Your task to perform on an android device: Go to Android settings Image 0: 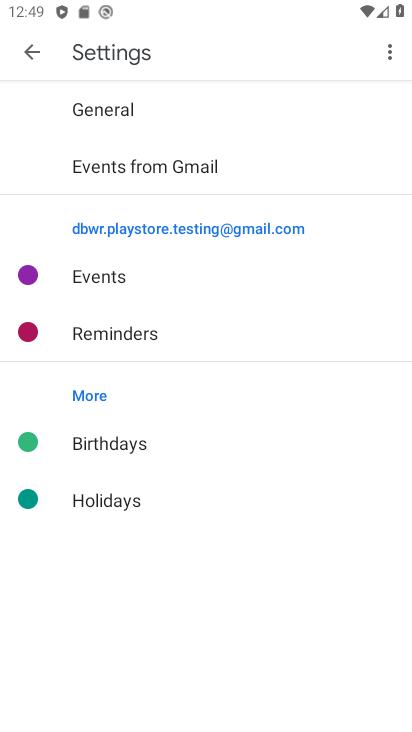
Step 0: drag from (198, 589) to (261, 301)
Your task to perform on an android device: Go to Android settings Image 1: 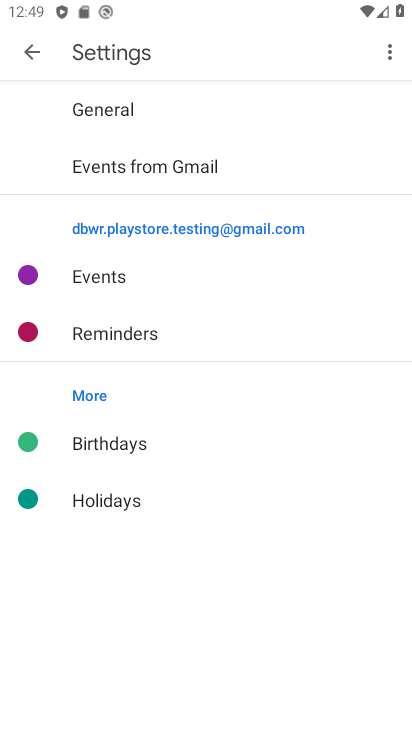
Step 1: press home button
Your task to perform on an android device: Go to Android settings Image 2: 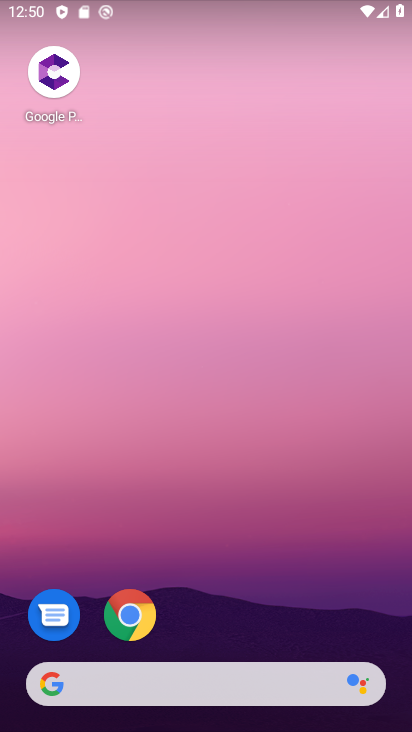
Step 2: drag from (179, 648) to (201, 111)
Your task to perform on an android device: Go to Android settings Image 3: 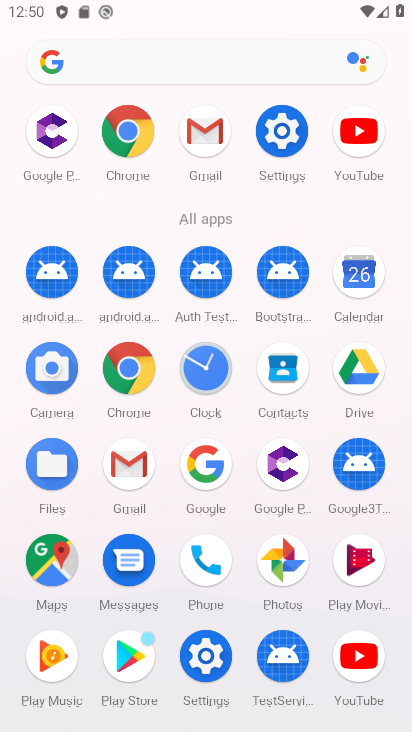
Step 3: click (287, 153)
Your task to perform on an android device: Go to Android settings Image 4: 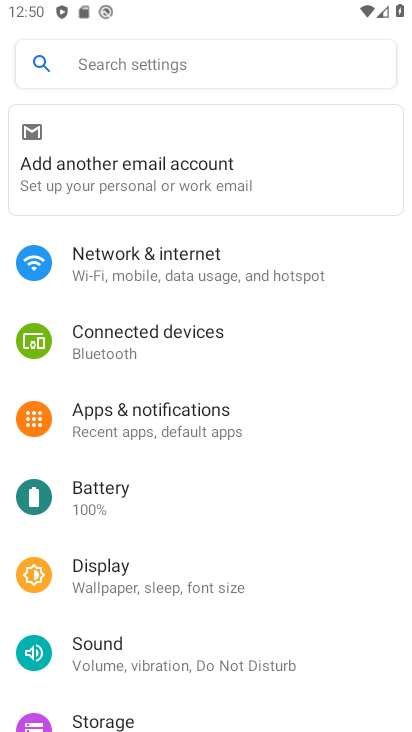
Step 4: drag from (180, 682) to (258, 250)
Your task to perform on an android device: Go to Android settings Image 5: 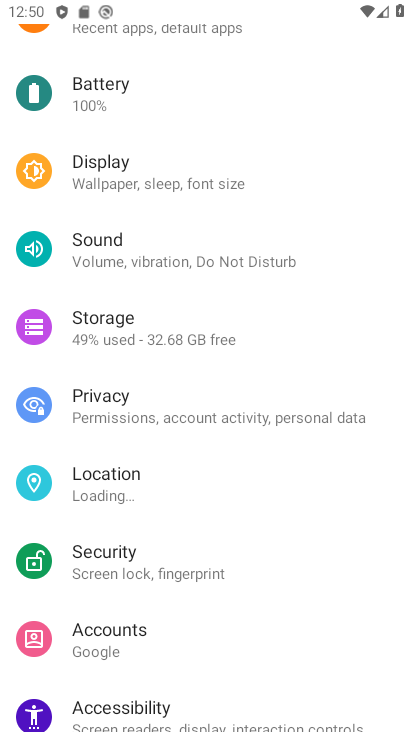
Step 5: drag from (152, 695) to (306, 26)
Your task to perform on an android device: Go to Android settings Image 6: 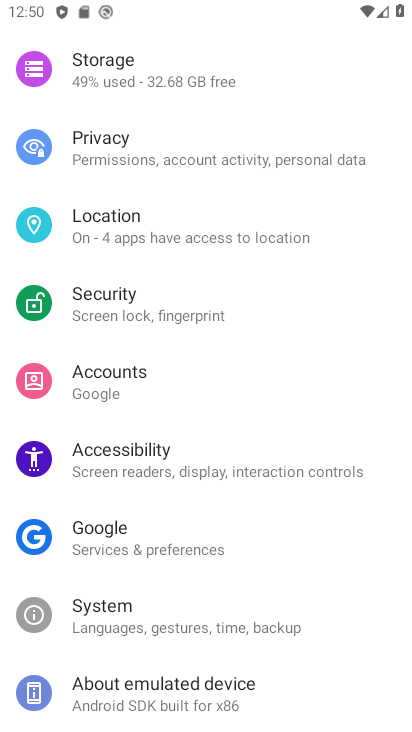
Step 6: click (139, 706)
Your task to perform on an android device: Go to Android settings Image 7: 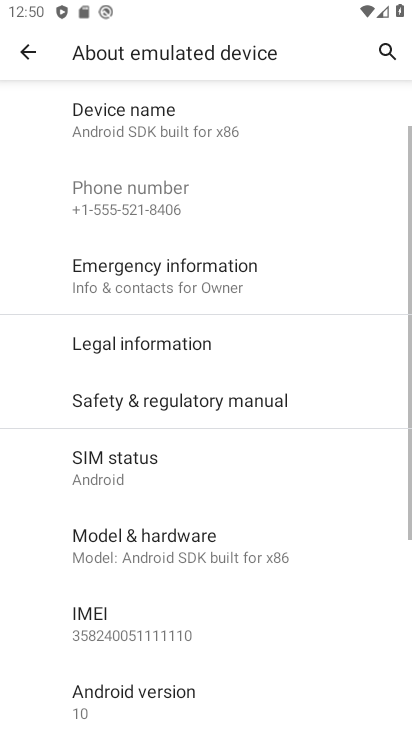
Step 7: drag from (170, 629) to (258, 205)
Your task to perform on an android device: Go to Android settings Image 8: 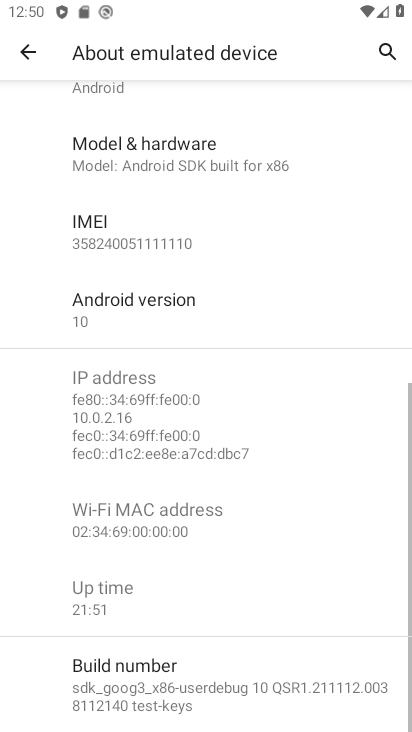
Step 8: click (208, 299)
Your task to perform on an android device: Go to Android settings Image 9: 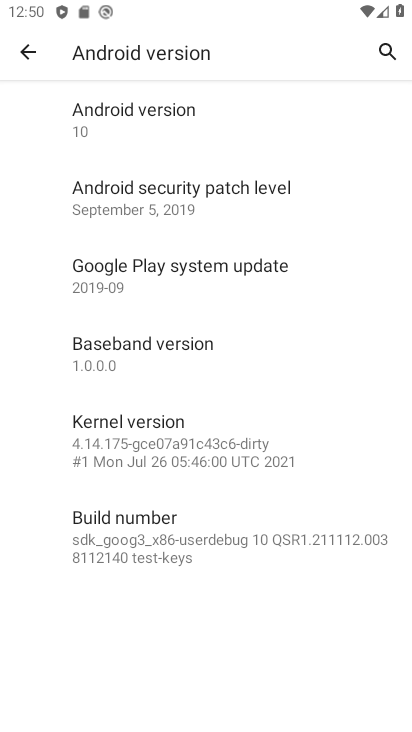
Step 9: drag from (180, 599) to (318, 290)
Your task to perform on an android device: Go to Android settings Image 10: 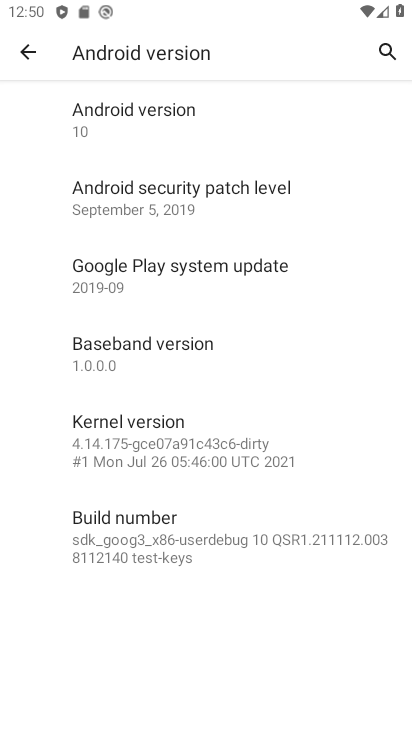
Step 10: click (197, 131)
Your task to perform on an android device: Go to Android settings Image 11: 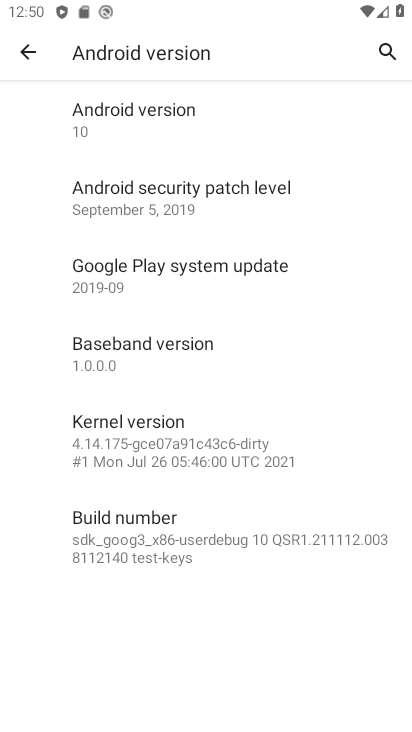
Step 11: task complete